Your task to perform on an android device: check out phone information Image 0: 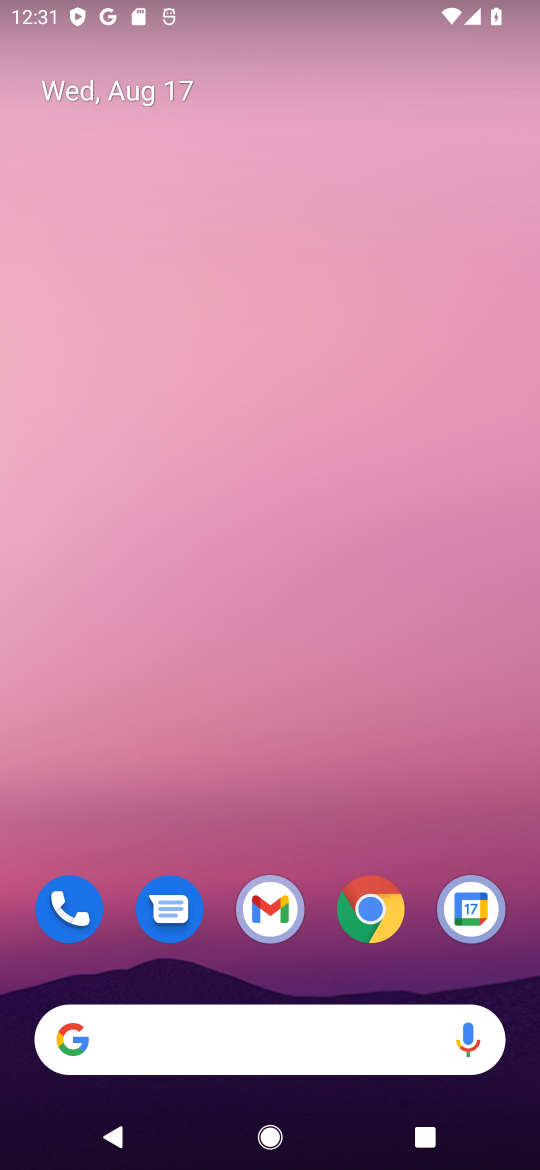
Step 0: drag from (250, 828) to (189, 159)
Your task to perform on an android device: check out phone information Image 1: 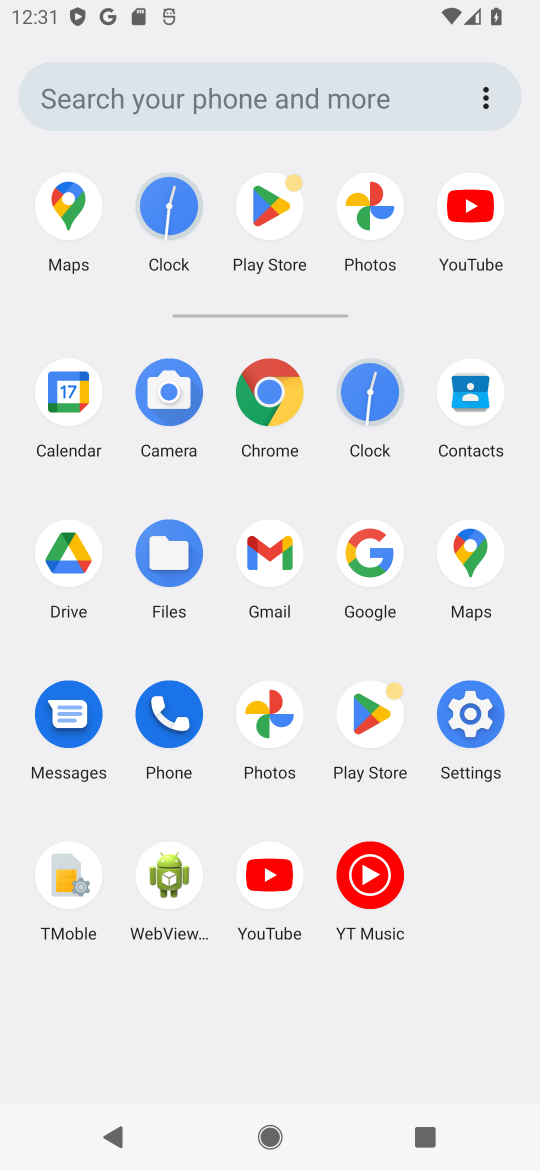
Step 1: click (474, 713)
Your task to perform on an android device: check out phone information Image 2: 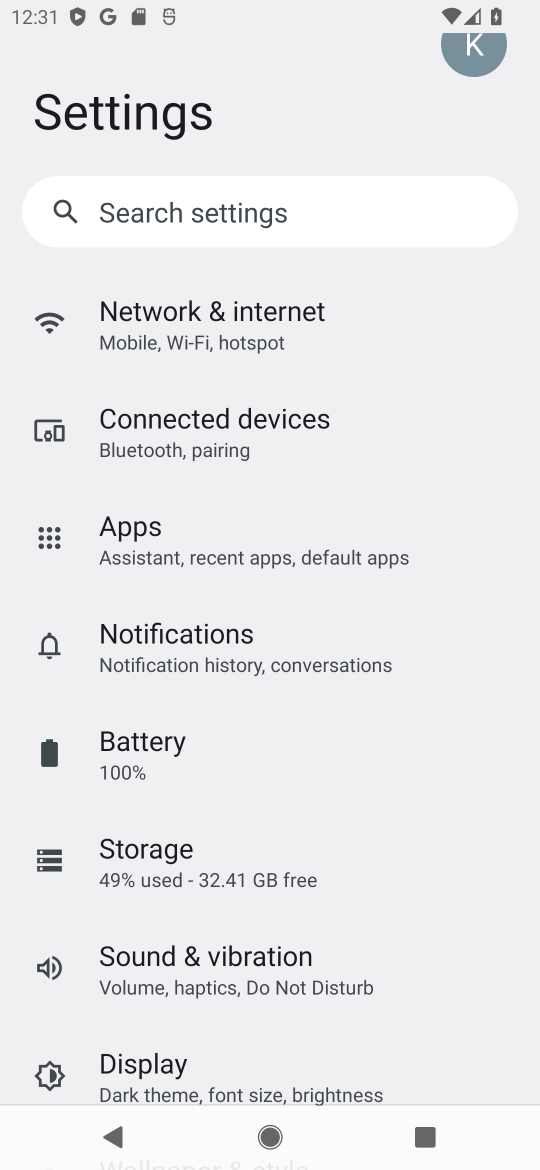
Step 2: drag from (304, 1017) to (272, 335)
Your task to perform on an android device: check out phone information Image 3: 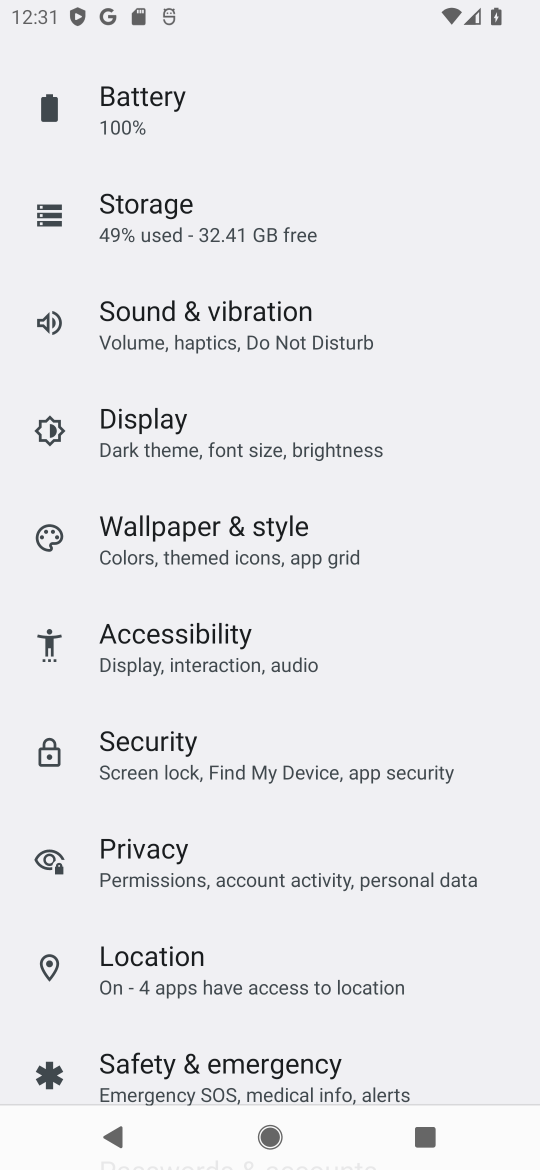
Step 3: drag from (354, 1019) to (319, 391)
Your task to perform on an android device: check out phone information Image 4: 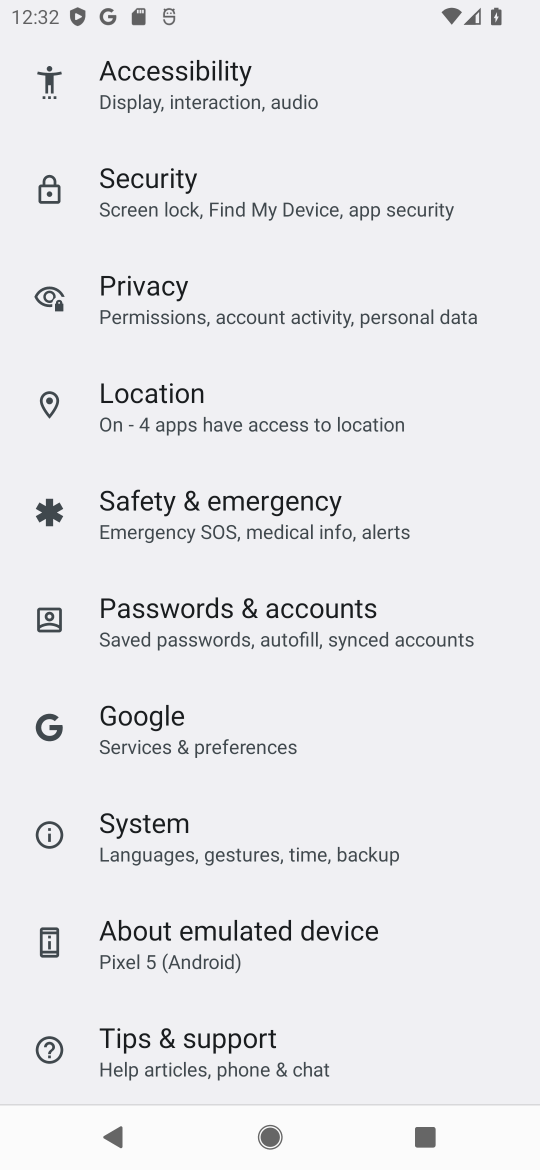
Step 4: click (226, 933)
Your task to perform on an android device: check out phone information Image 5: 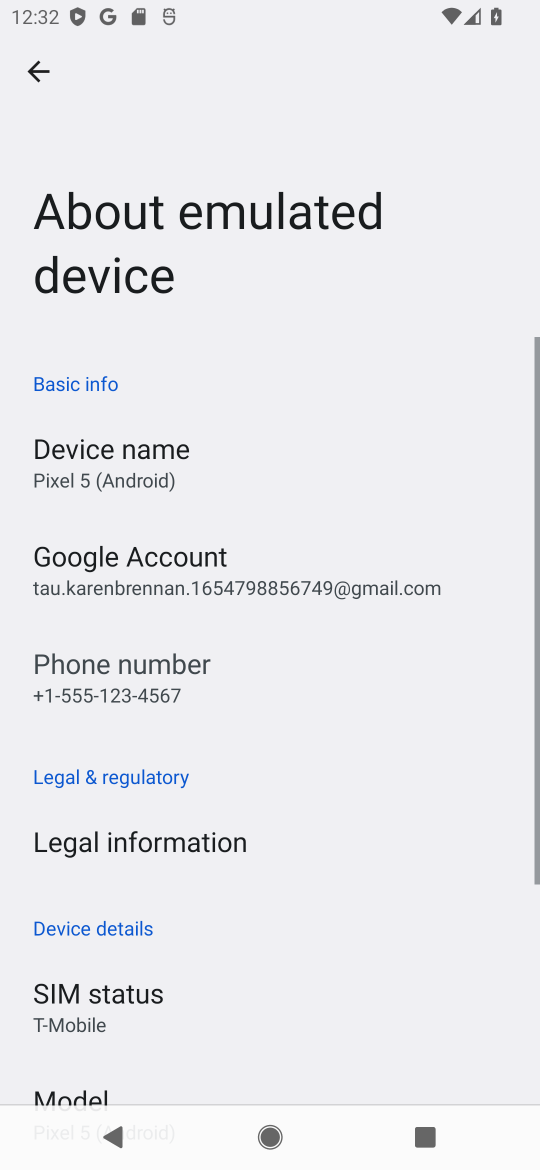
Step 5: task complete